Your task to perform on an android device: turn on the 24-hour format for clock Image 0: 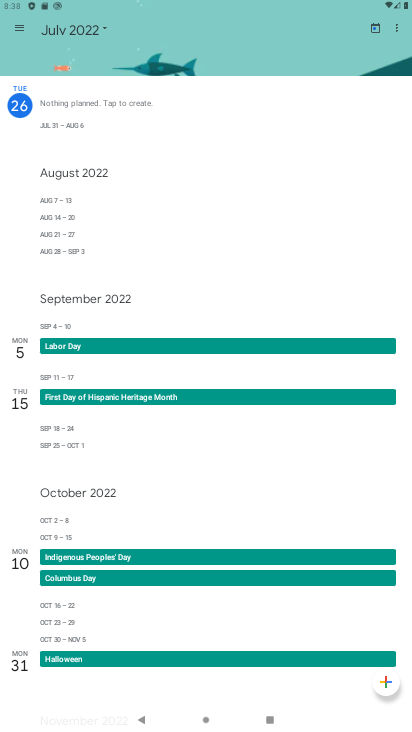
Step 0: press home button
Your task to perform on an android device: turn on the 24-hour format for clock Image 1: 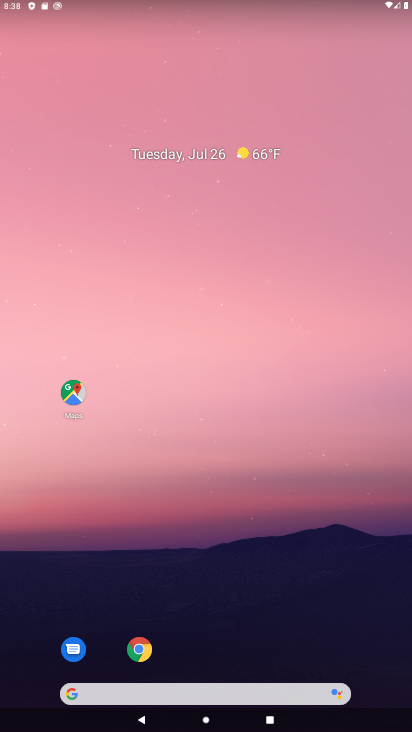
Step 1: drag from (242, 682) to (238, 27)
Your task to perform on an android device: turn on the 24-hour format for clock Image 2: 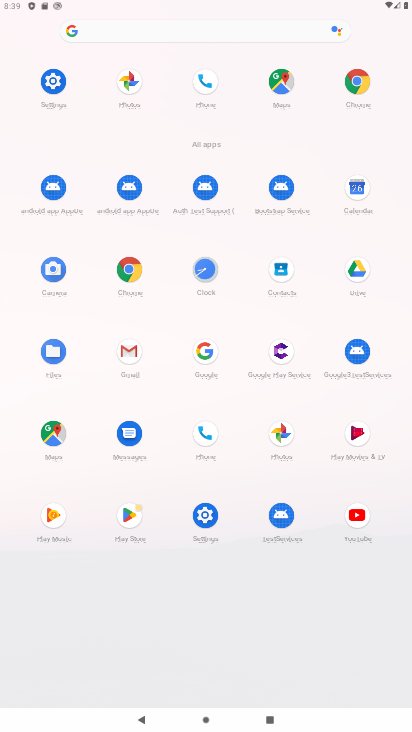
Step 2: click (215, 265)
Your task to perform on an android device: turn on the 24-hour format for clock Image 3: 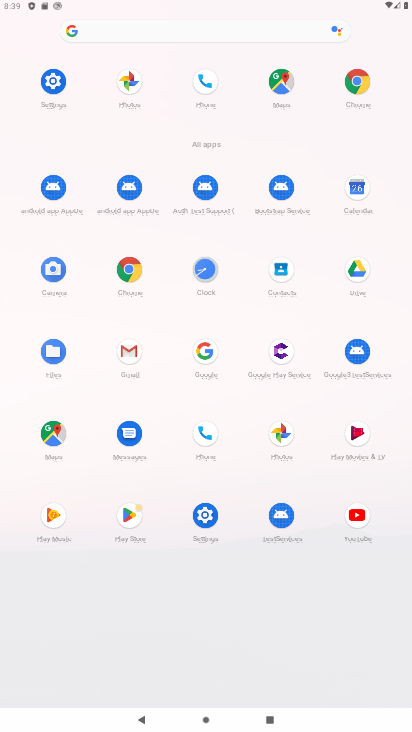
Step 3: click (215, 265)
Your task to perform on an android device: turn on the 24-hour format for clock Image 4: 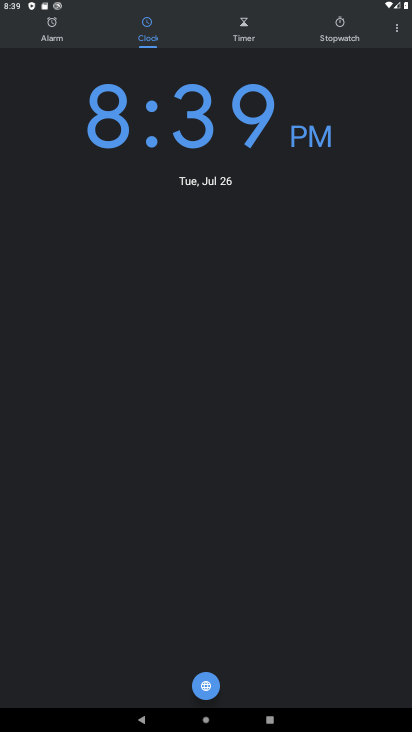
Step 4: click (397, 28)
Your task to perform on an android device: turn on the 24-hour format for clock Image 5: 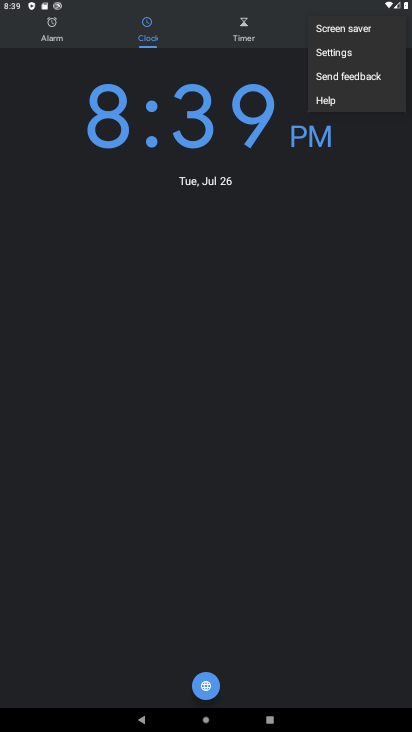
Step 5: click (354, 54)
Your task to perform on an android device: turn on the 24-hour format for clock Image 6: 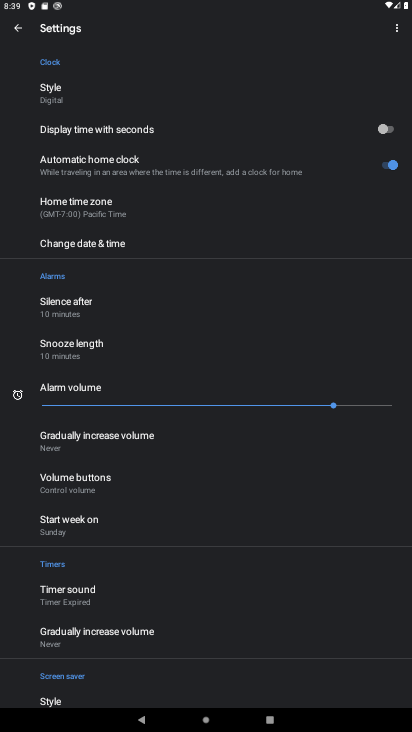
Step 6: click (240, 245)
Your task to perform on an android device: turn on the 24-hour format for clock Image 7: 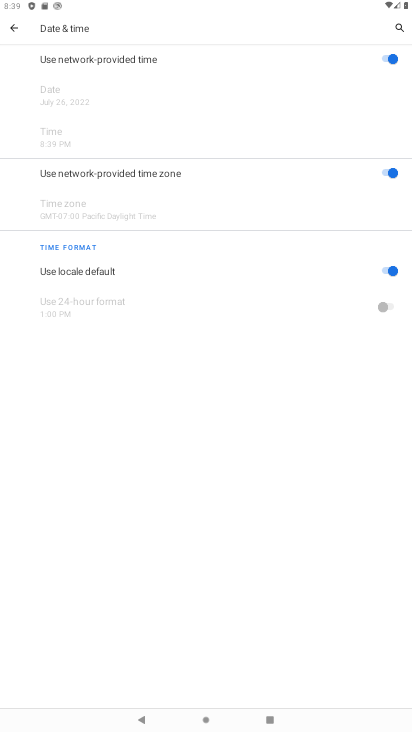
Step 7: click (392, 268)
Your task to perform on an android device: turn on the 24-hour format for clock Image 8: 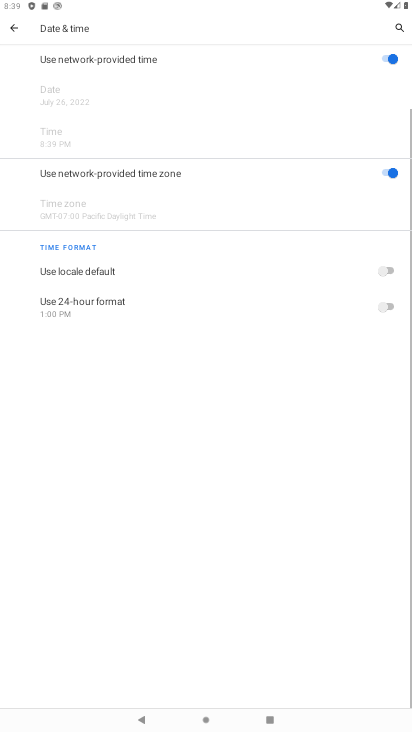
Step 8: click (391, 307)
Your task to perform on an android device: turn on the 24-hour format for clock Image 9: 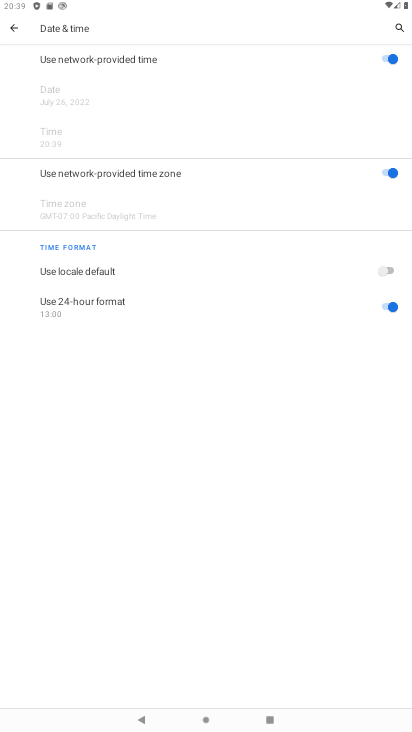
Step 9: task complete